Your task to perform on an android device: Open location settings Image 0: 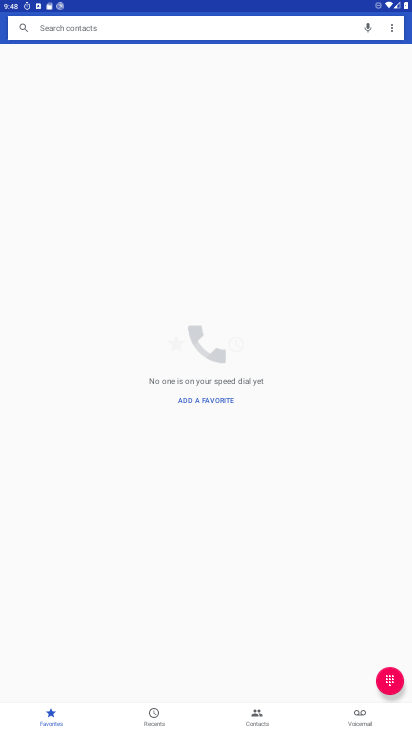
Step 0: press home button
Your task to perform on an android device: Open location settings Image 1: 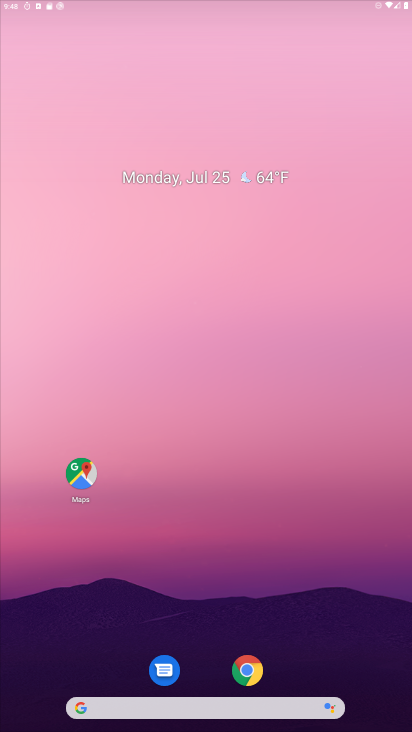
Step 1: drag from (402, 683) to (192, 160)
Your task to perform on an android device: Open location settings Image 2: 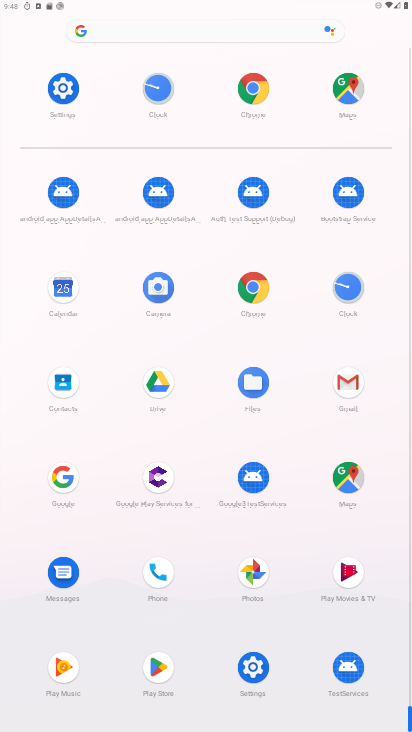
Step 2: click (265, 672)
Your task to perform on an android device: Open location settings Image 3: 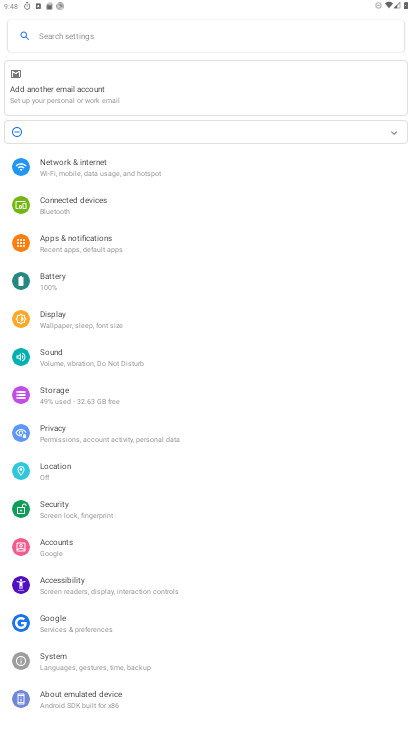
Step 3: click (58, 490)
Your task to perform on an android device: Open location settings Image 4: 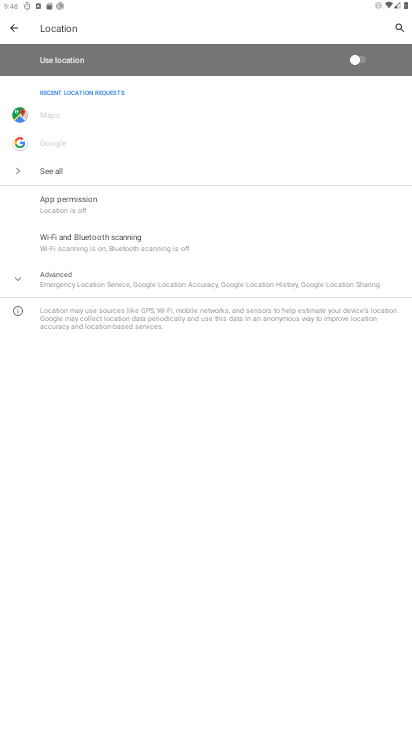
Step 4: task complete